Your task to perform on an android device: show emergency info Image 0: 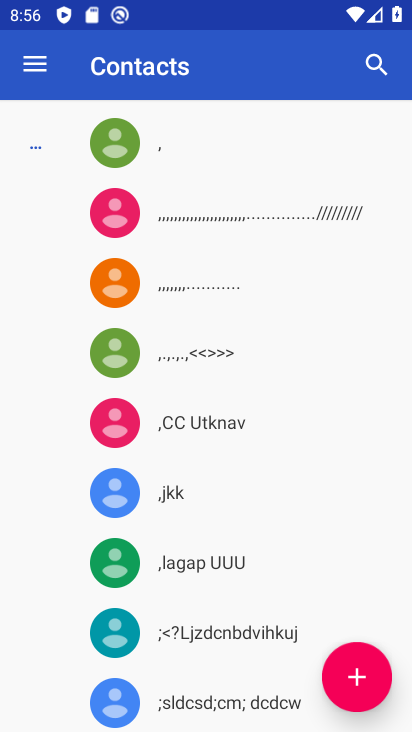
Step 0: press home button
Your task to perform on an android device: show emergency info Image 1: 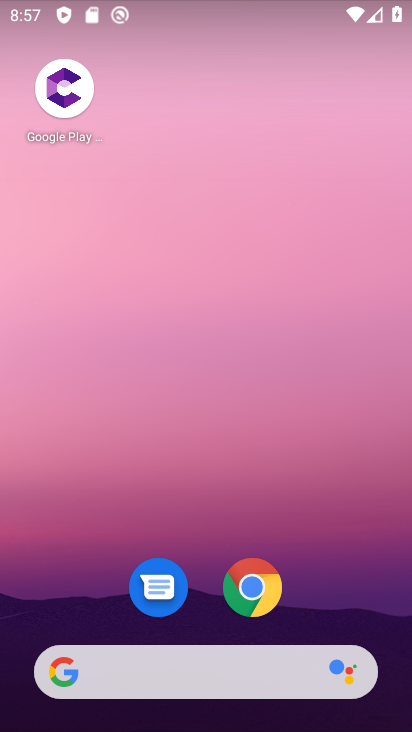
Step 1: drag from (189, 510) to (238, 7)
Your task to perform on an android device: show emergency info Image 2: 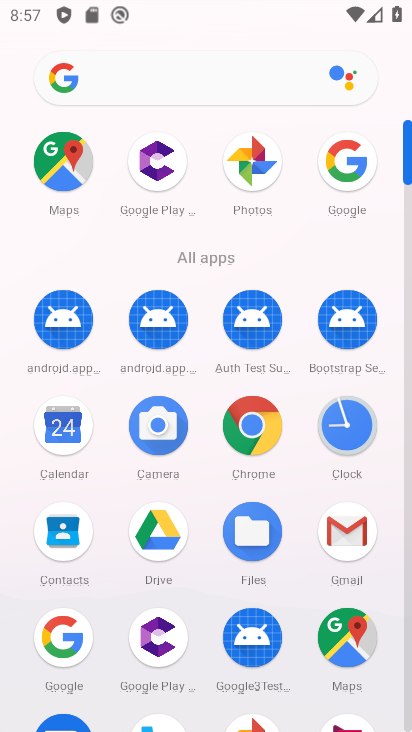
Step 2: drag from (196, 579) to (206, 367)
Your task to perform on an android device: show emergency info Image 3: 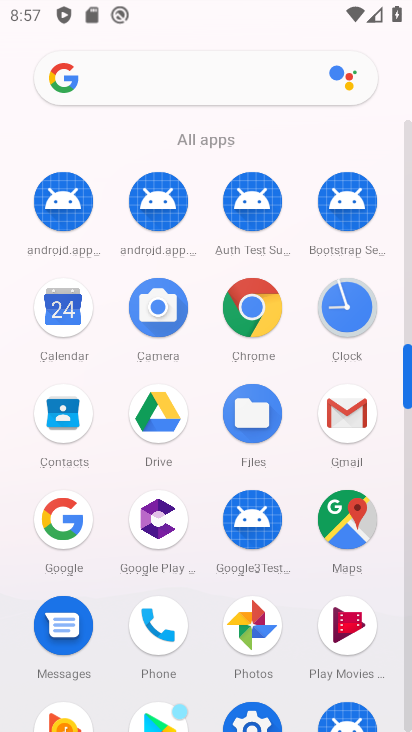
Step 3: drag from (196, 473) to (224, 285)
Your task to perform on an android device: show emergency info Image 4: 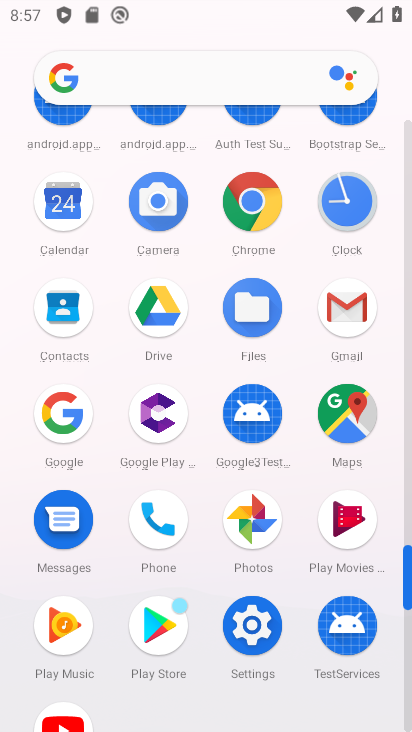
Step 4: click (251, 624)
Your task to perform on an android device: show emergency info Image 5: 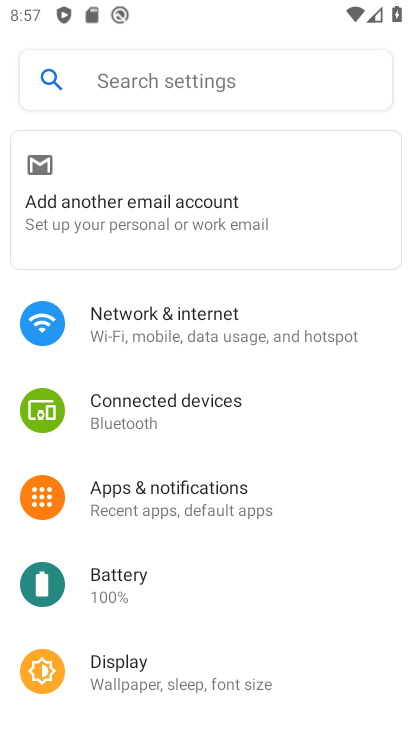
Step 5: click (251, 624)
Your task to perform on an android device: show emergency info Image 6: 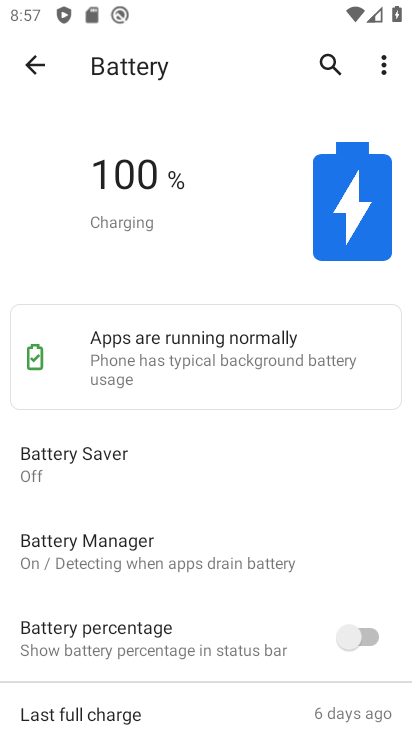
Step 6: press back button
Your task to perform on an android device: show emergency info Image 7: 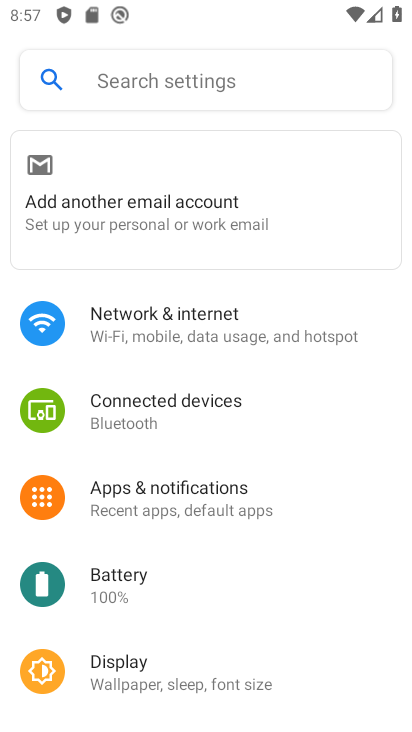
Step 7: drag from (243, 448) to (282, 305)
Your task to perform on an android device: show emergency info Image 8: 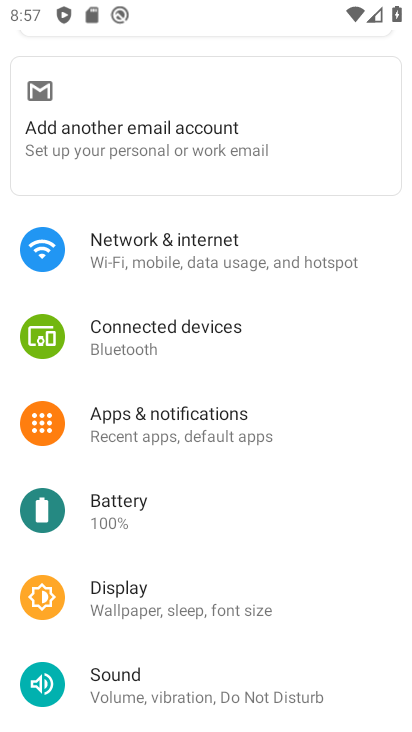
Step 8: drag from (211, 495) to (248, 386)
Your task to perform on an android device: show emergency info Image 9: 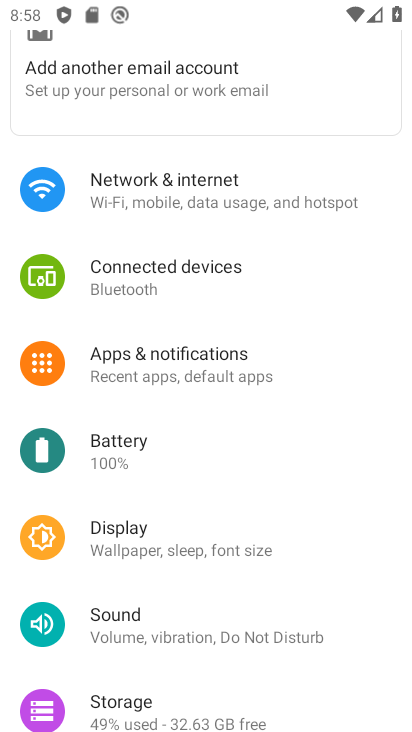
Step 9: drag from (212, 527) to (250, 394)
Your task to perform on an android device: show emergency info Image 10: 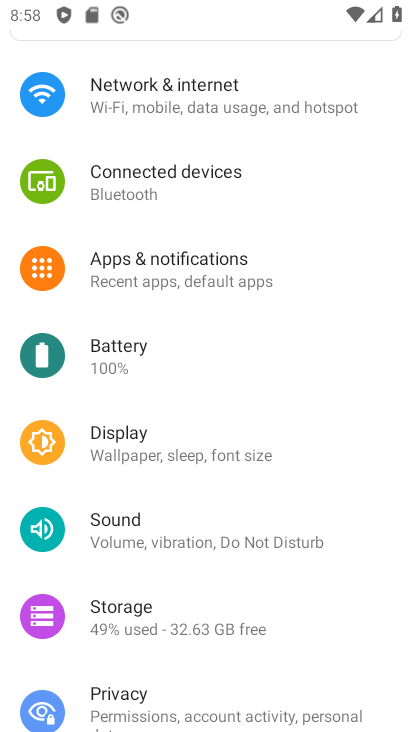
Step 10: drag from (160, 569) to (191, 409)
Your task to perform on an android device: show emergency info Image 11: 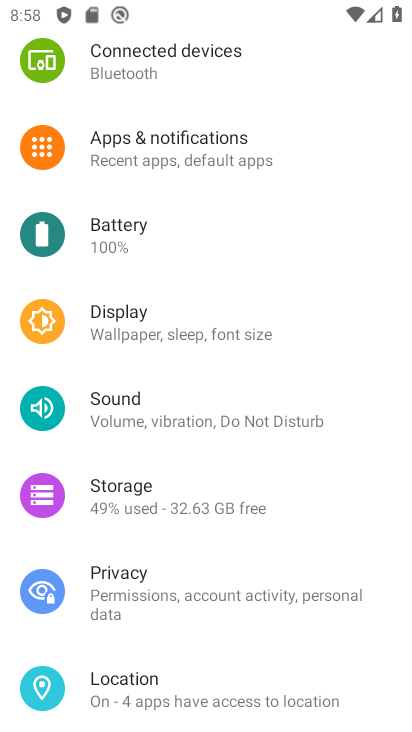
Step 11: drag from (182, 567) to (231, 425)
Your task to perform on an android device: show emergency info Image 12: 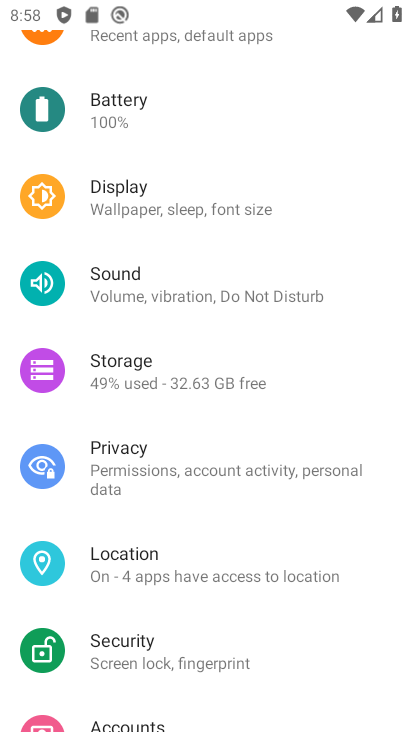
Step 12: drag from (183, 554) to (238, 430)
Your task to perform on an android device: show emergency info Image 13: 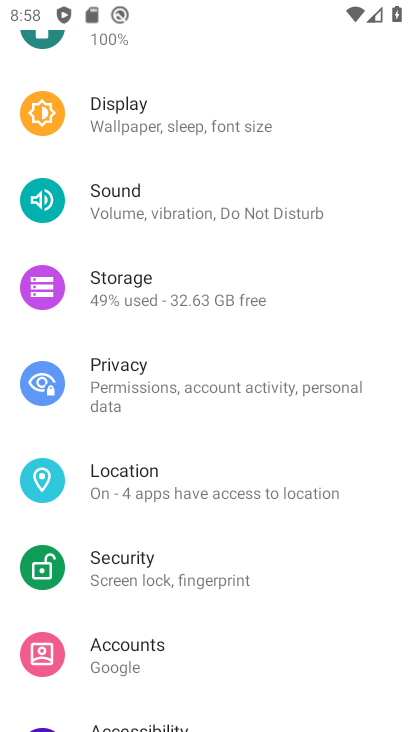
Step 13: drag from (198, 527) to (227, 396)
Your task to perform on an android device: show emergency info Image 14: 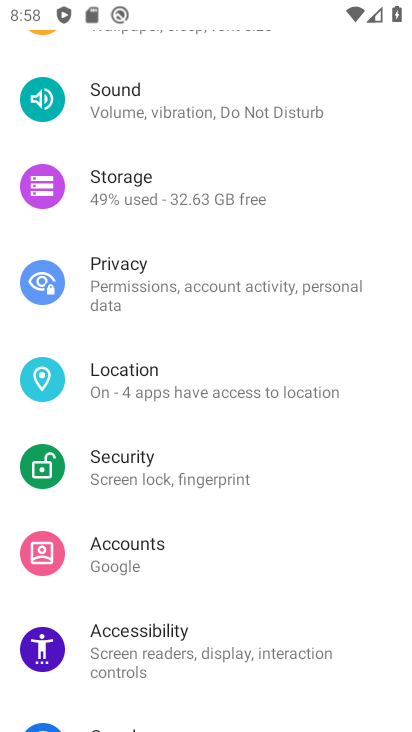
Step 14: drag from (193, 515) to (226, 415)
Your task to perform on an android device: show emergency info Image 15: 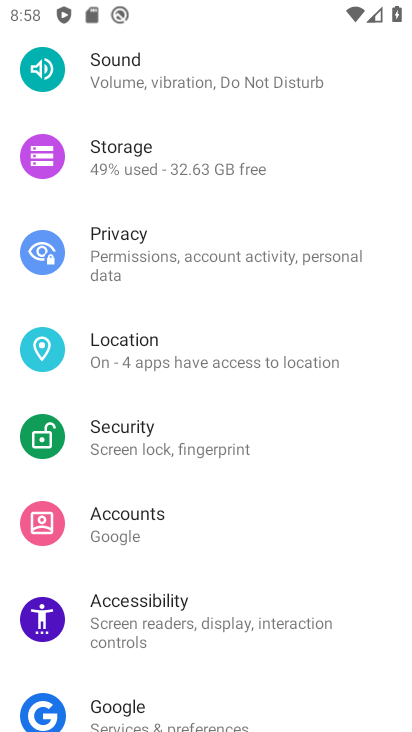
Step 15: drag from (169, 564) to (213, 426)
Your task to perform on an android device: show emergency info Image 16: 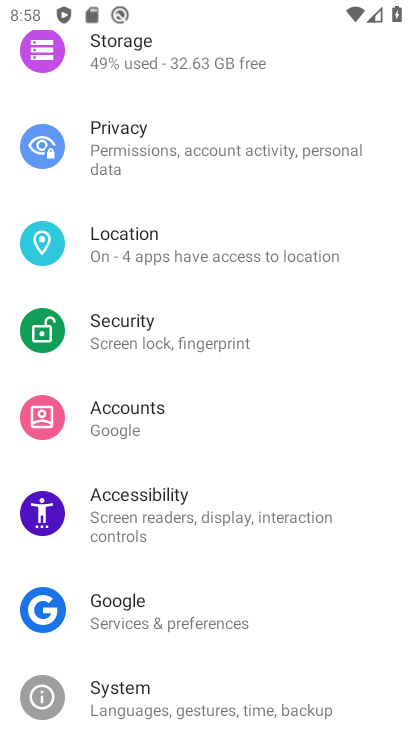
Step 16: drag from (170, 552) to (191, 443)
Your task to perform on an android device: show emergency info Image 17: 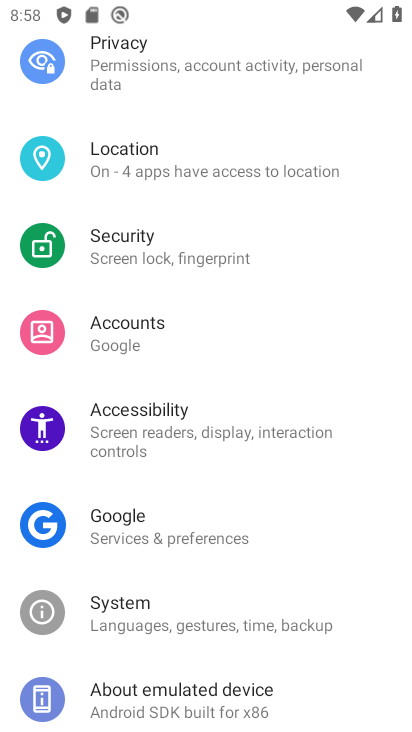
Step 17: drag from (121, 569) to (157, 490)
Your task to perform on an android device: show emergency info Image 18: 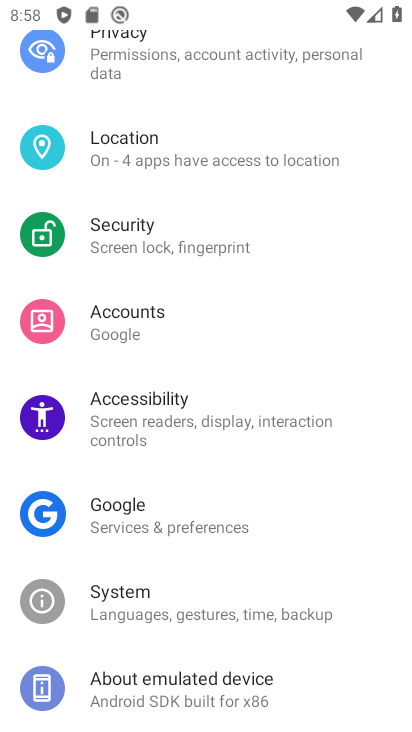
Step 18: drag from (108, 636) to (151, 522)
Your task to perform on an android device: show emergency info Image 19: 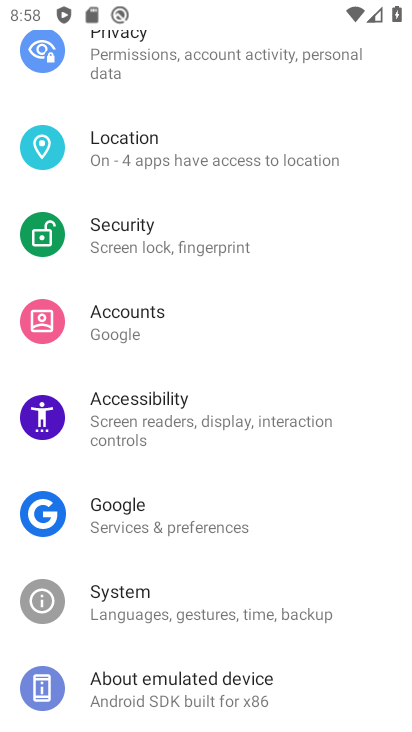
Step 19: click (173, 680)
Your task to perform on an android device: show emergency info Image 20: 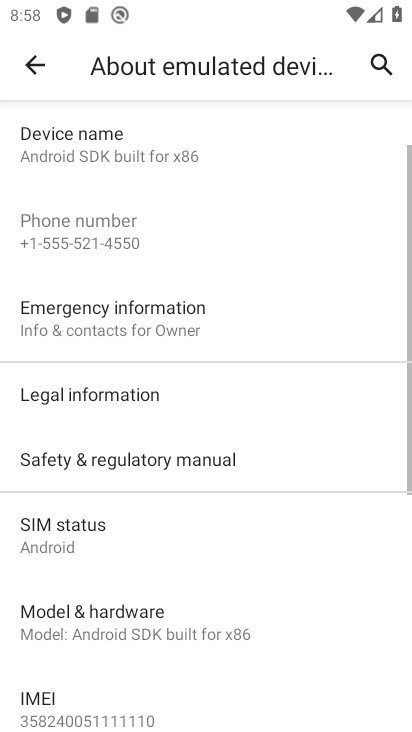
Step 20: task complete